Your task to perform on an android device: turn off notifications in google photos Image 0: 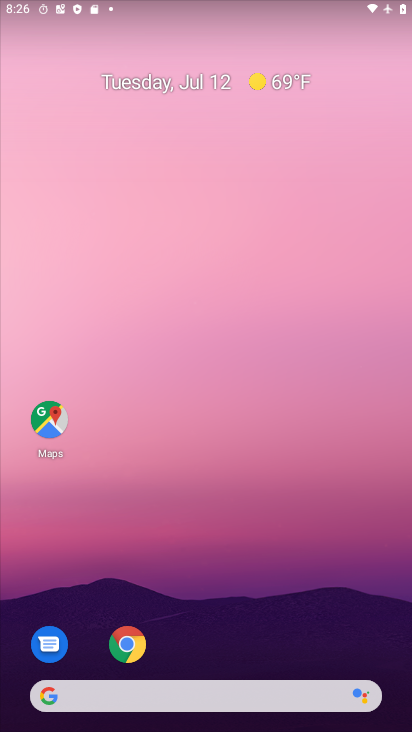
Step 0: drag from (229, 659) to (217, 3)
Your task to perform on an android device: turn off notifications in google photos Image 1: 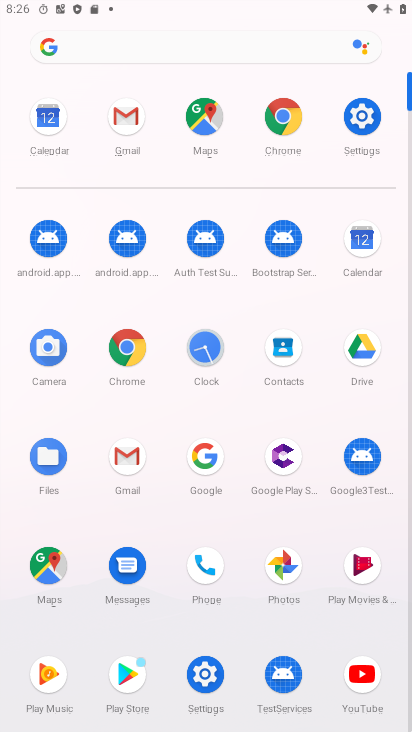
Step 1: click (280, 559)
Your task to perform on an android device: turn off notifications in google photos Image 2: 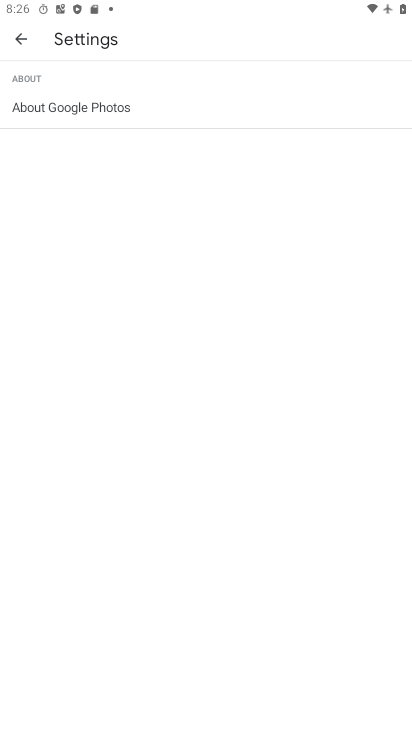
Step 2: click (17, 36)
Your task to perform on an android device: turn off notifications in google photos Image 3: 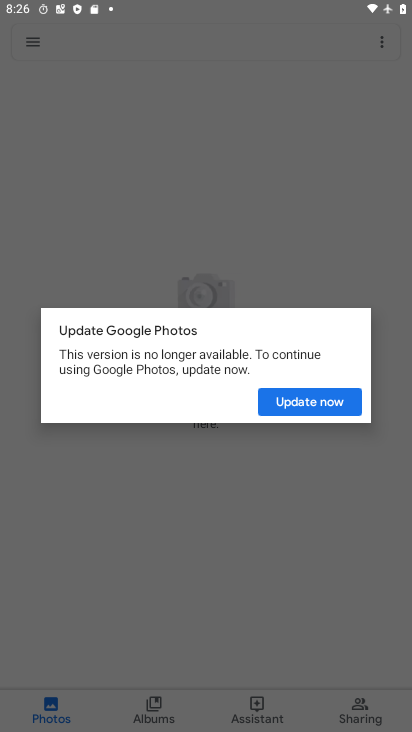
Step 3: click (252, 538)
Your task to perform on an android device: turn off notifications in google photos Image 4: 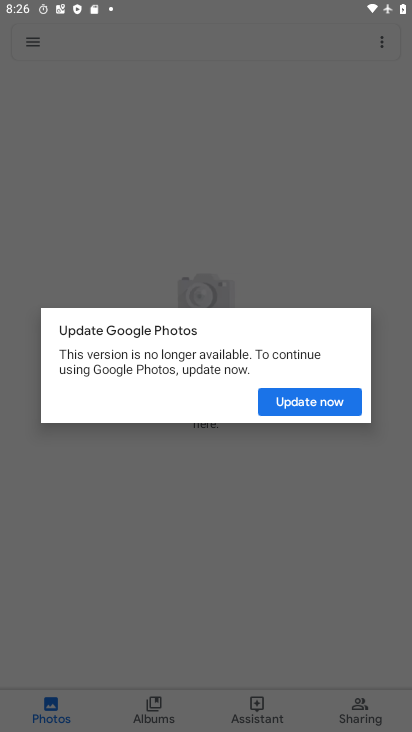
Step 4: click (310, 399)
Your task to perform on an android device: turn off notifications in google photos Image 5: 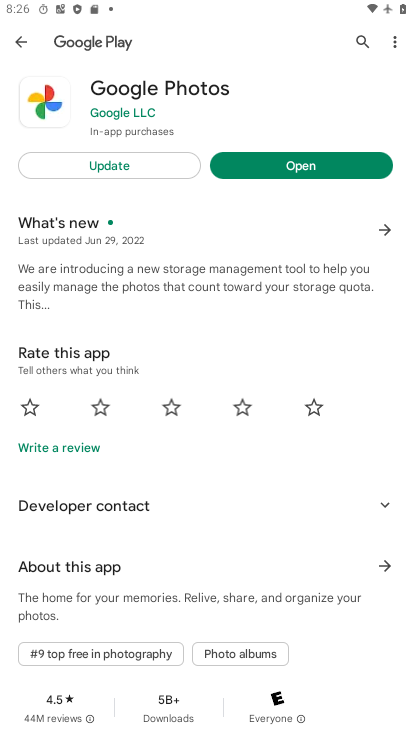
Step 5: click (108, 164)
Your task to perform on an android device: turn off notifications in google photos Image 6: 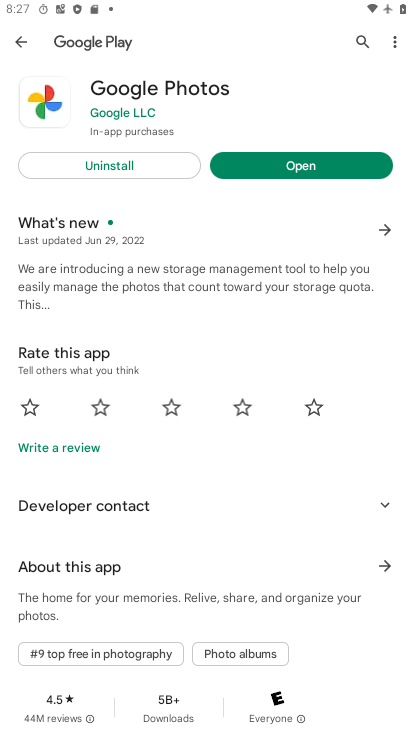
Step 6: click (303, 162)
Your task to perform on an android device: turn off notifications in google photos Image 7: 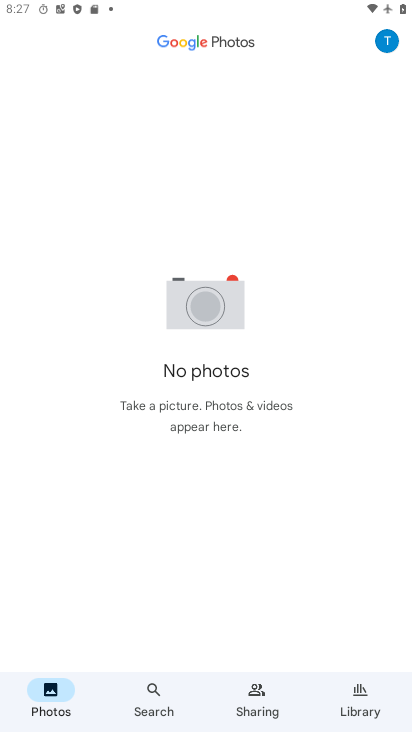
Step 7: click (386, 38)
Your task to perform on an android device: turn off notifications in google photos Image 8: 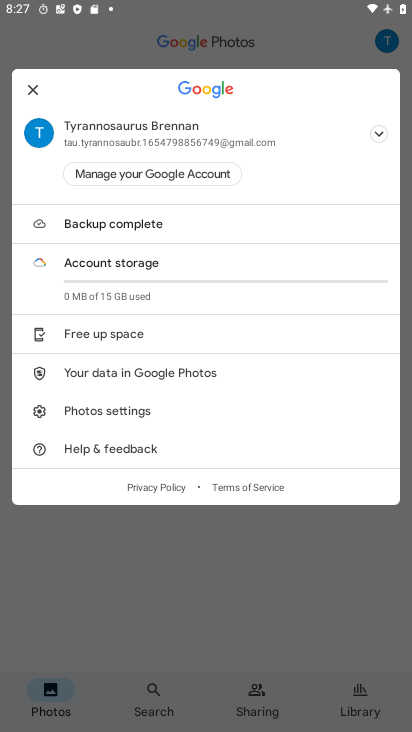
Step 8: click (160, 408)
Your task to perform on an android device: turn off notifications in google photos Image 9: 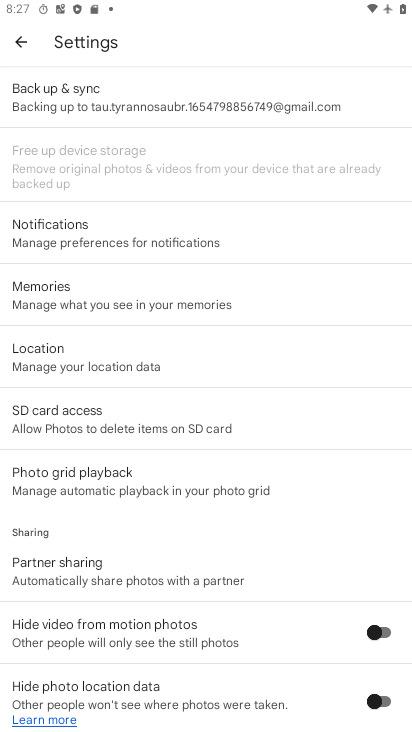
Step 9: click (94, 227)
Your task to perform on an android device: turn off notifications in google photos Image 10: 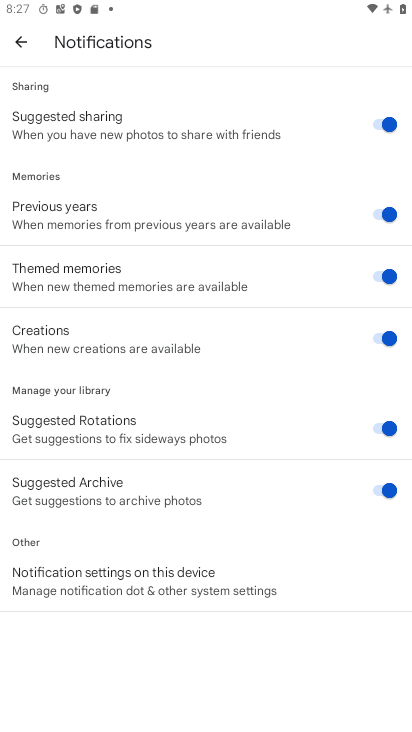
Step 10: click (298, 580)
Your task to perform on an android device: turn off notifications in google photos Image 11: 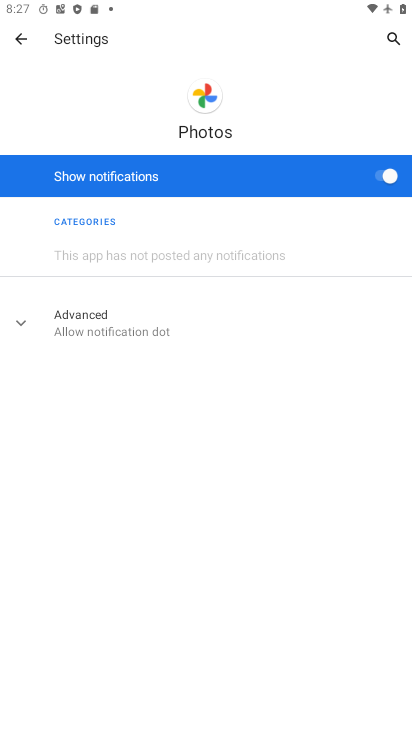
Step 11: click (377, 175)
Your task to perform on an android device: turn off notifications in google photos Image 12: 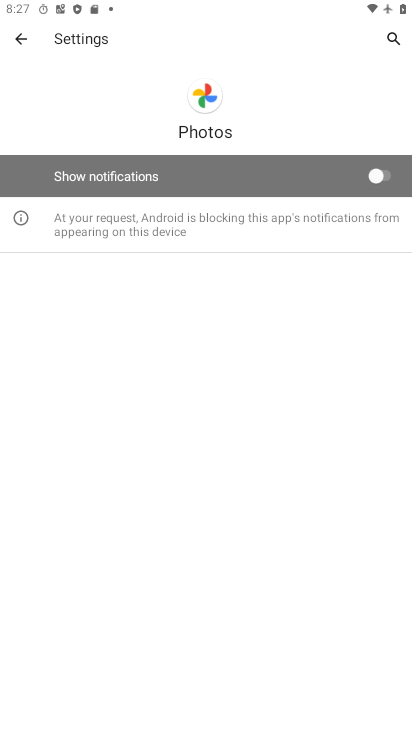
Step 12: task complete